Your task to perform on an android device: change the clock display to analog Image 0: 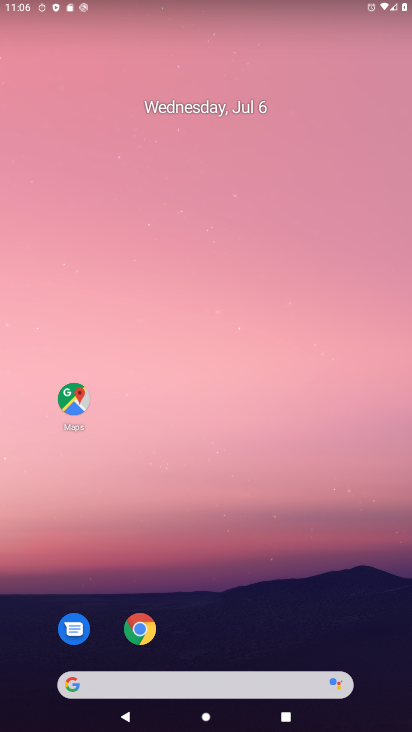
Step 0: drag from (216, 632) to (273, 42)
Your task to perform on an android device: change the clock display to analog Image 1: 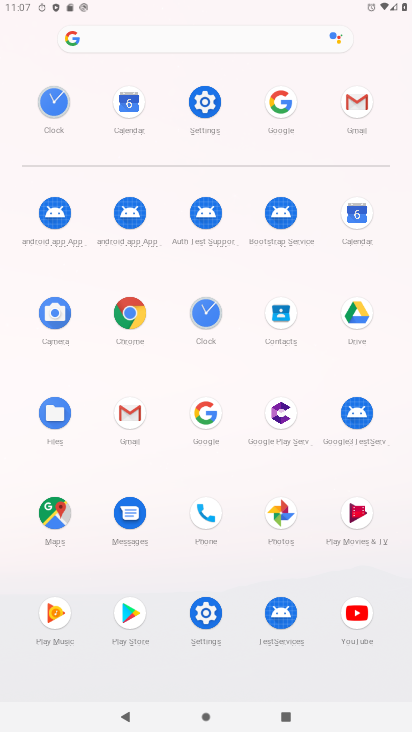
Step 1: click (205, 318)
Your task to perform on an android device: change the clock display to analog Image 2: 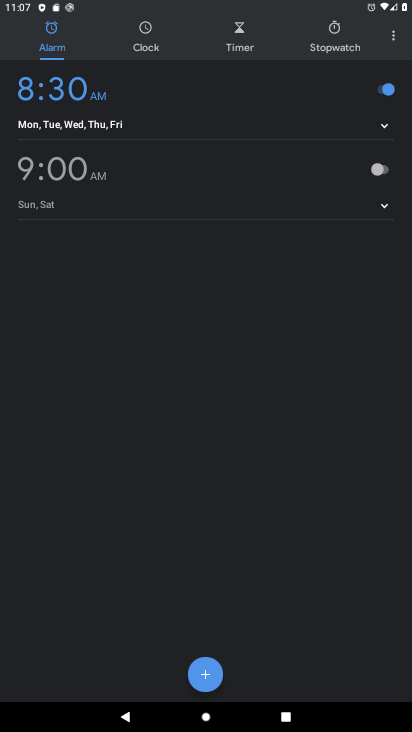
Step 2: click (388, 39)
Your task to perform on an android device: change the clock display to analog Image 3: 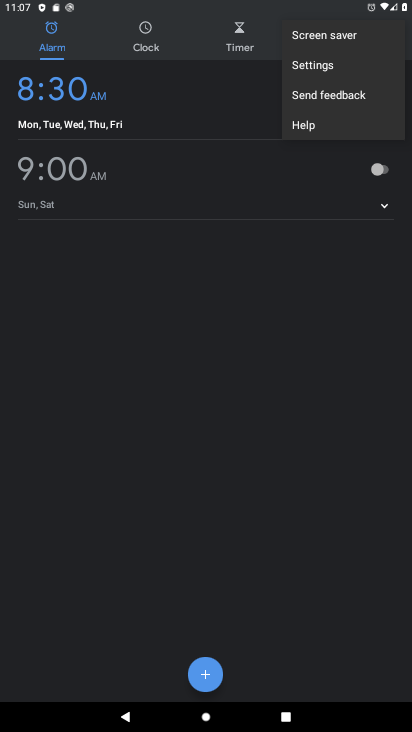
Step 3: click (305, 61)
Your task to perform on an android device: change the clock display to analog Image 4: 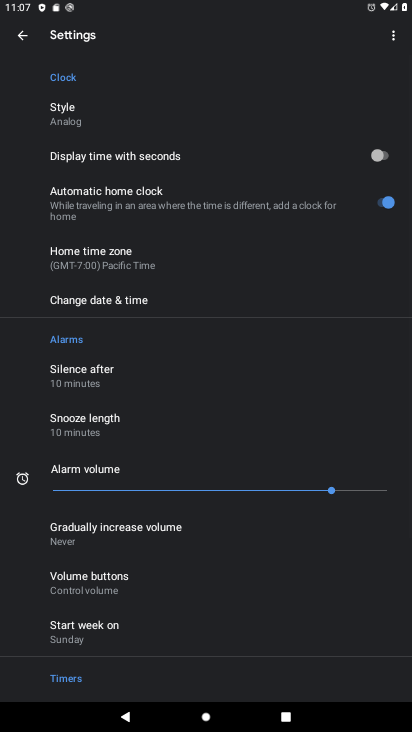
Step 4: click (66, 111)
Your task to perform on an android device: change the clock display to analog Image 5: 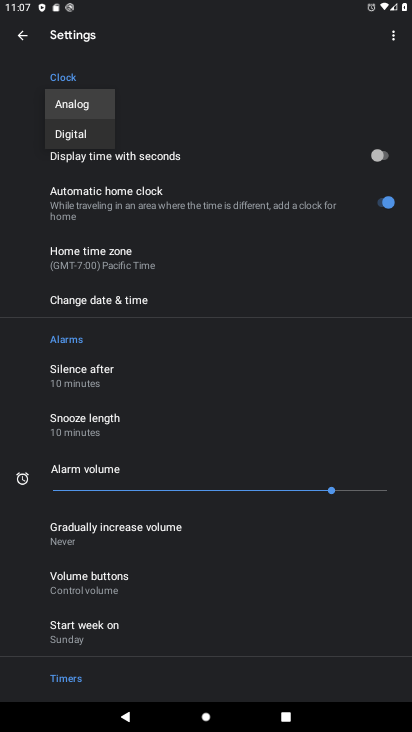
Step 5: task complete